Your task to perform on an android device: Turn on the flashlight Image 0: 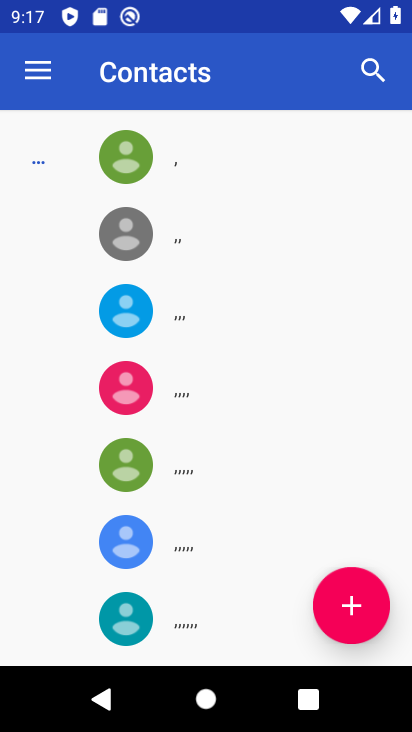
Step 0: drag from (234, 13) to (239, 404)
Your task to perform on an android device: Turn on the flashlight Image 1: 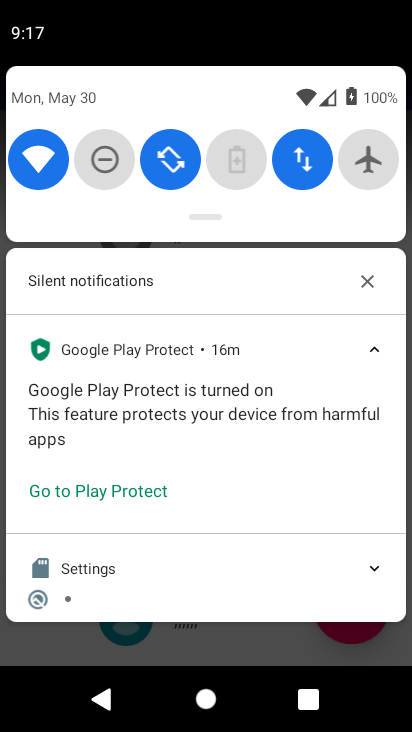
Step 1: drag from (301, 157) to (298, 520)
Your task to perform on an android device: Turn on the flashlight Image 2: 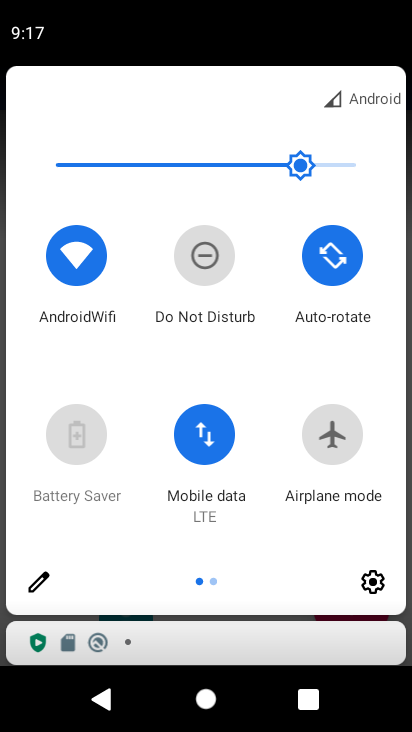
Step 2: drag from (380, 443) to (3, 486)
Your task to perform on an android device: Turn on the flashlight Image 3: 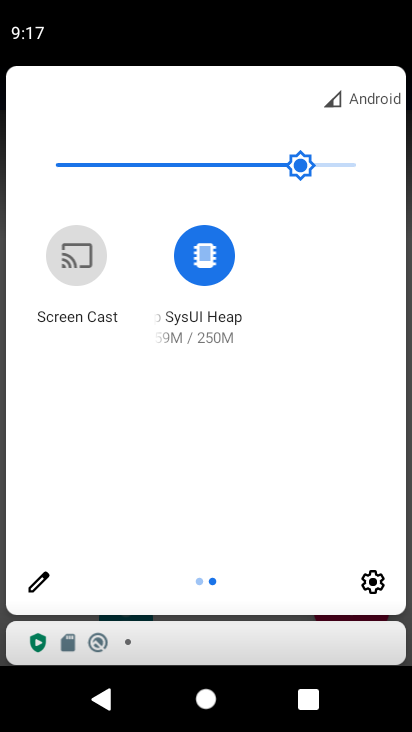
Step 3: click (31, 582)
Your task to perform on an android device: Turn on the flashlight Image 4: 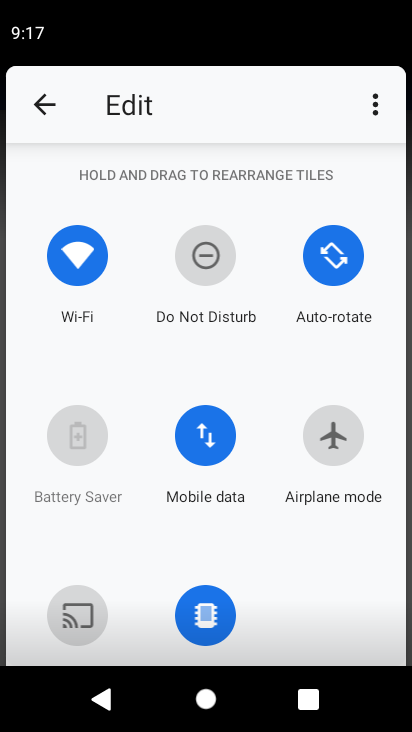
Step 4: task complete